Your task to perform on an android device: What's the weather? Image 0: 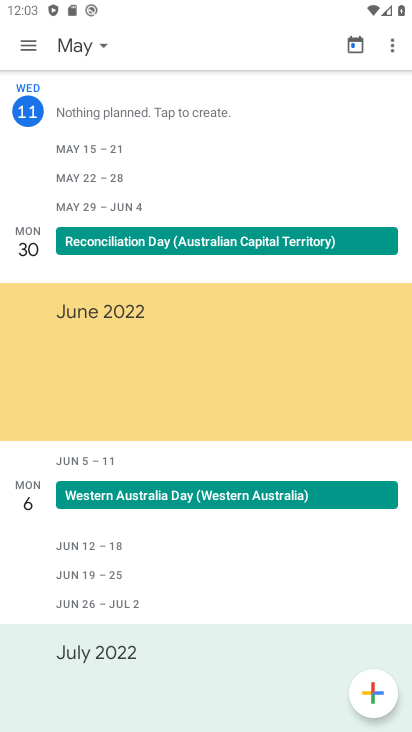
Step 0: press home button
Your task to perform on an android device: What's the weather? Image 1: 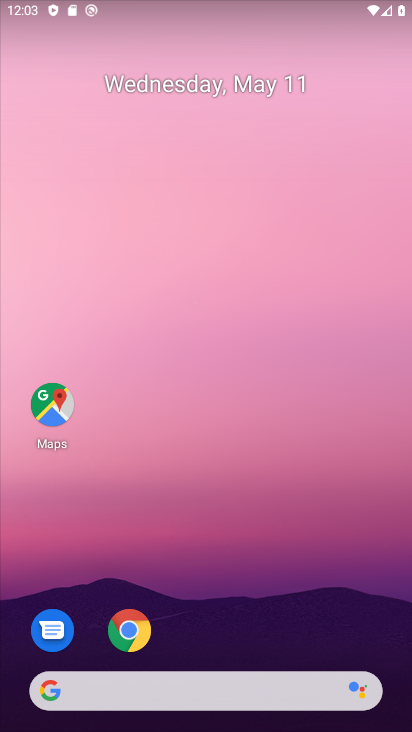
Step 1: drag from (219, 654) to (176, 21)
Your task to perform on an android device: What's the weather? Image 2: 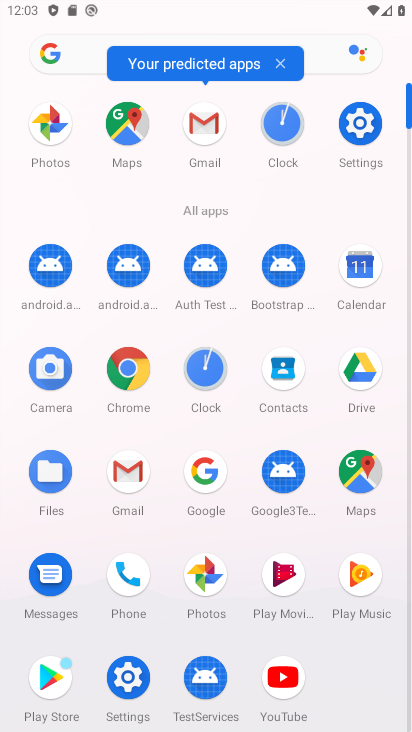
Step 2: click (212, 469)
Your task to perform on an android device: What's the weather? Image 3: 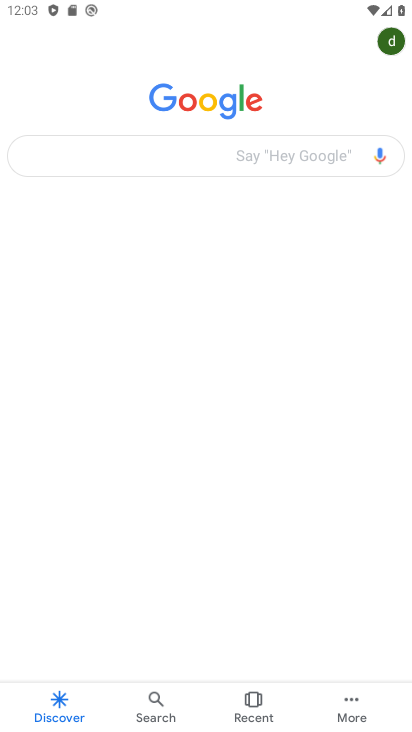
Step 3: click (181, 148)
Your task to perform on an android device: What's the weather? Image 4: 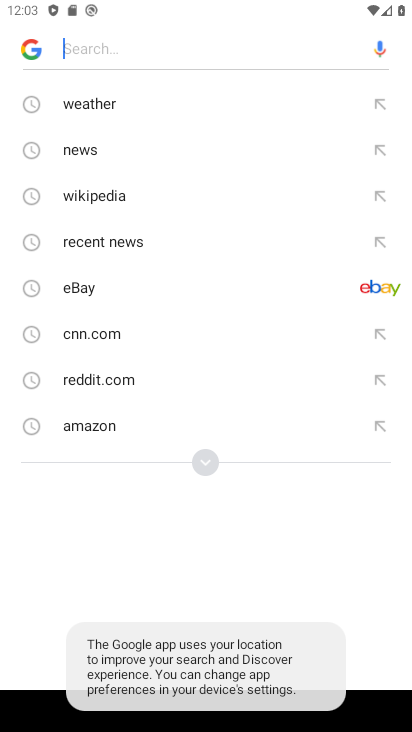
Step 4: click (97, 101)
Your task to perform on an android device: What's the weather? Image 5: 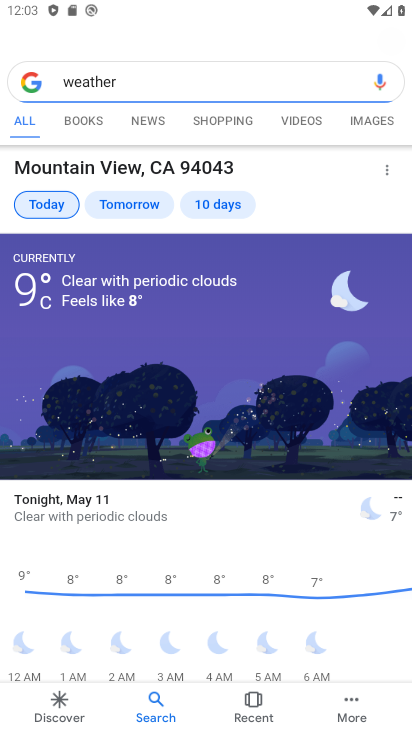
Step 5: task complete